Your task to perform on an android device: toggle airplane mode Image 0: 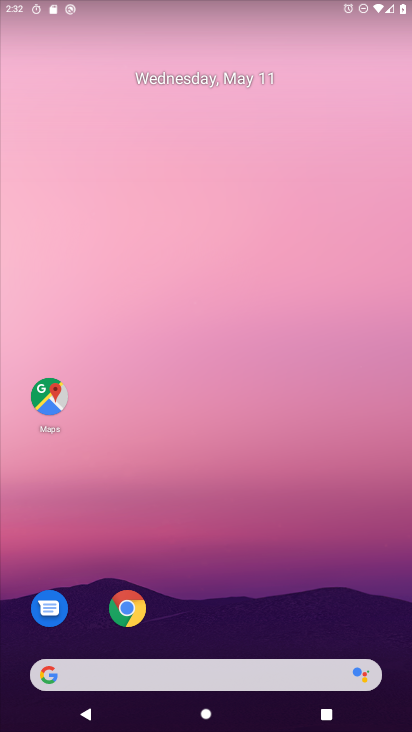
Step 0: drag from (204, 667) to (241, 119)
Your task to perform on an android device: toggle airplane mode Image 1: 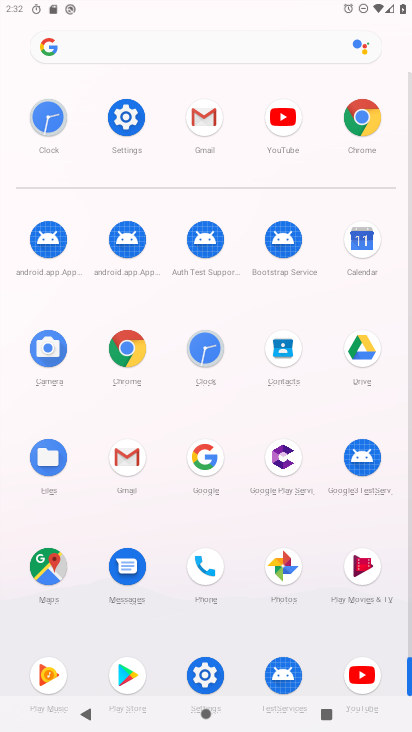
Step 1: click (145, 119)
Your task to perform on an android device: toggle airplane mode Image 2: 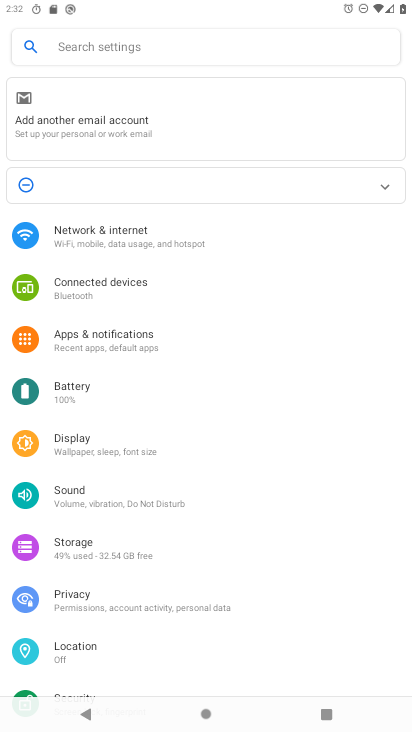
Step 2: click (134, 230)
Your task to perform on an android device: toggle airplane mode Image 3: 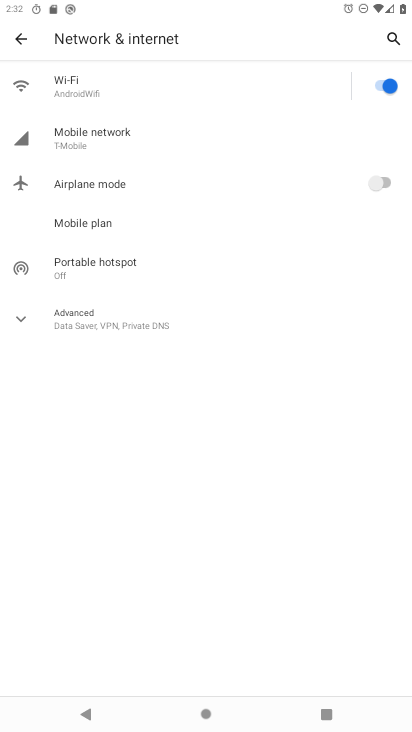
Step 3: click (322, 184)
Your task to perform on an android device: toggle airplane mode Image 4: 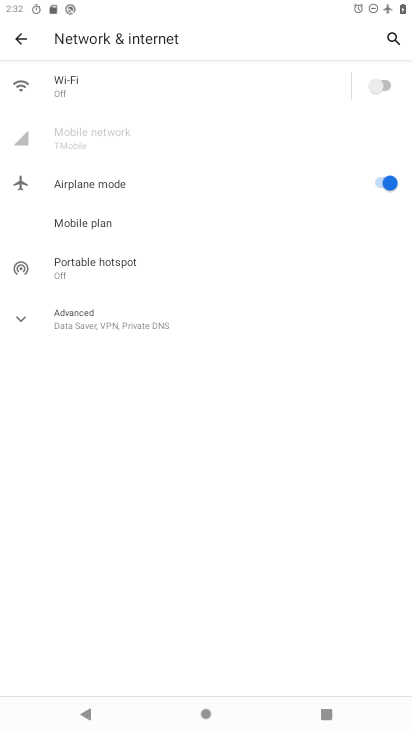
Step 4: task complete